Your task to perform on an android device: Open battery settings Image 0: 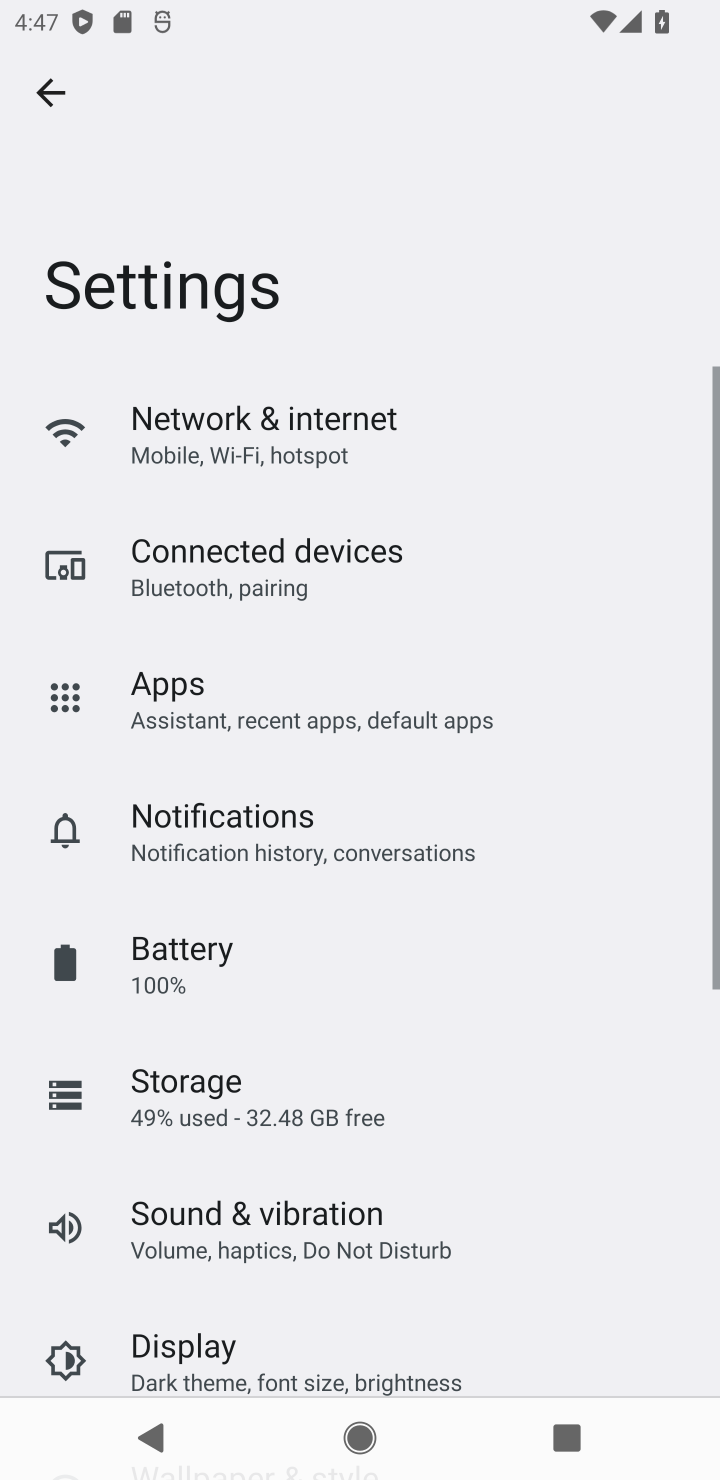
Step 0: press home button
Your task to perform on an android device: Open battery settings Image 1: 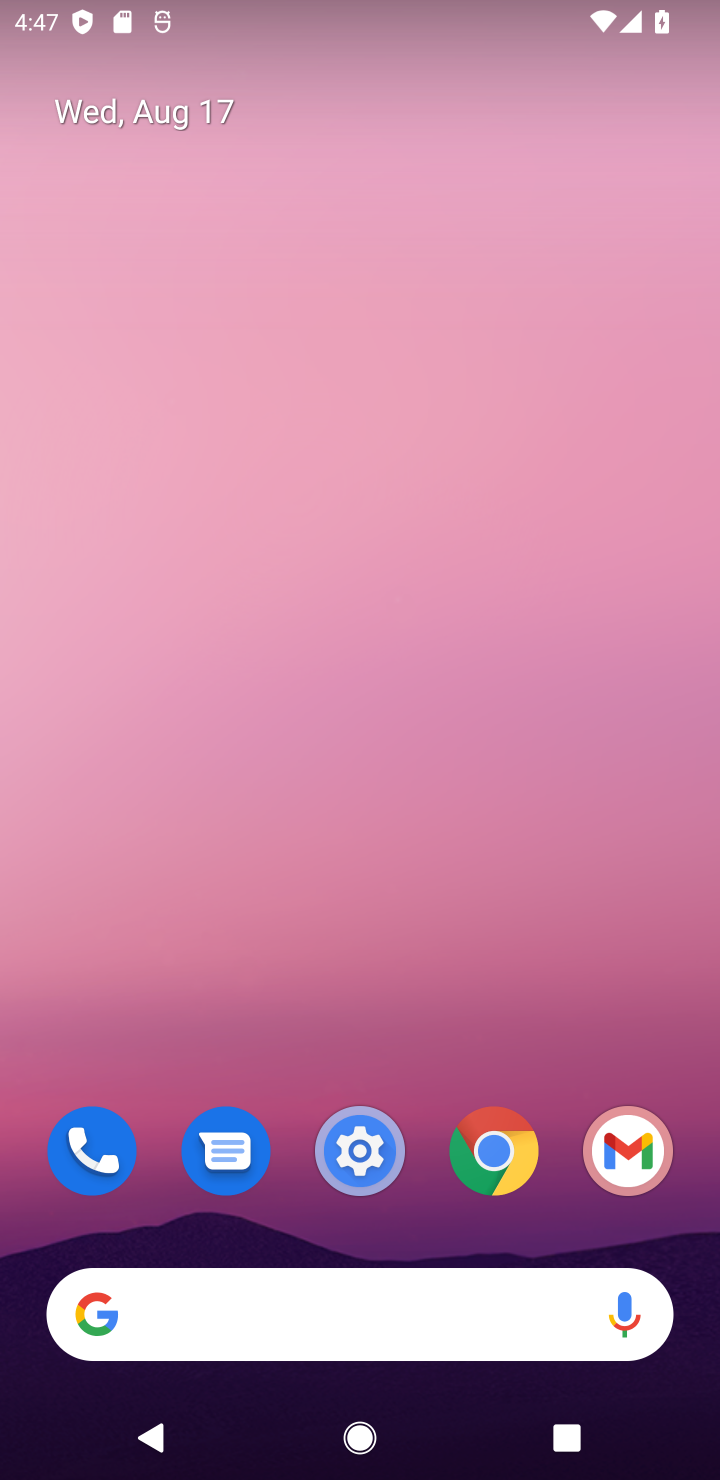
Step 1: click (491, 1190)
Your task to perform on an android device: Open battery settings Image 2: 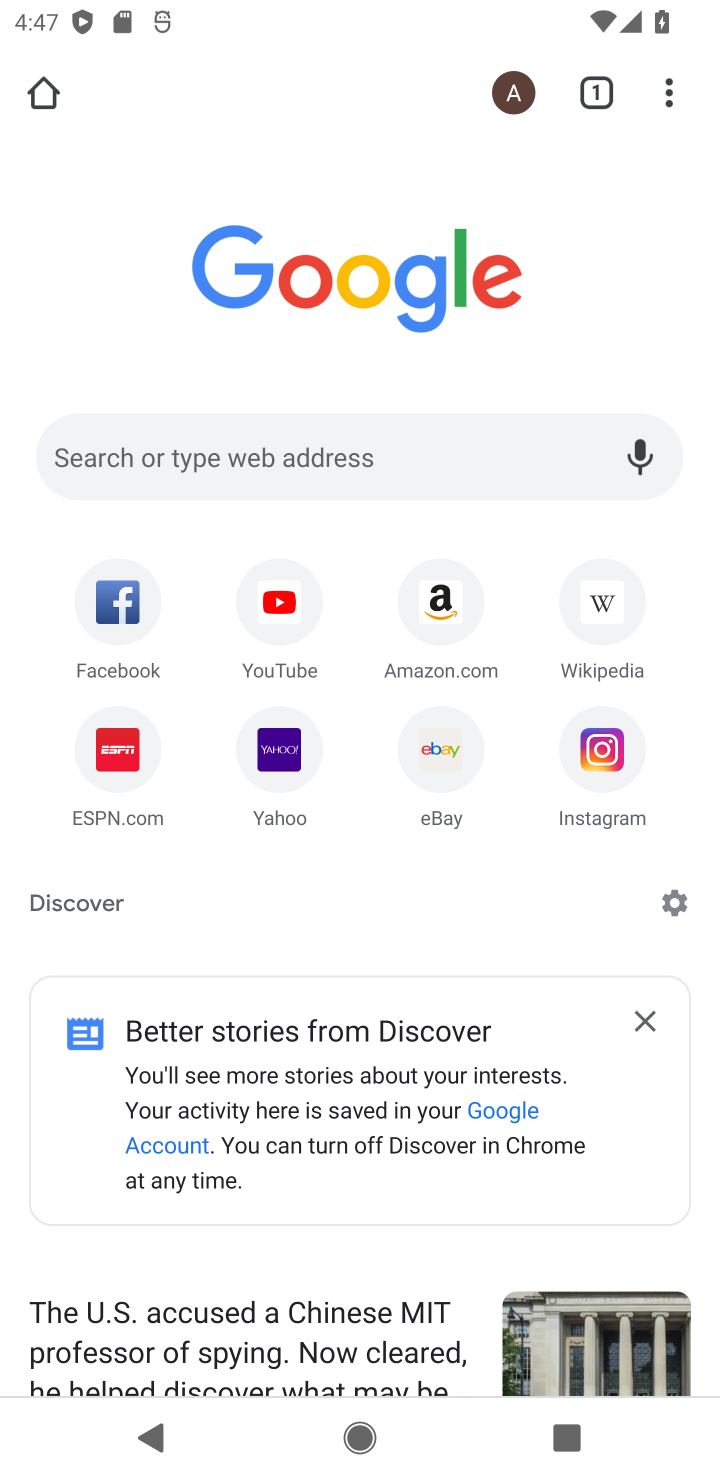
Step 2: click (465, 779)
Your task to perform on an android device: Open battery settings Image 3: 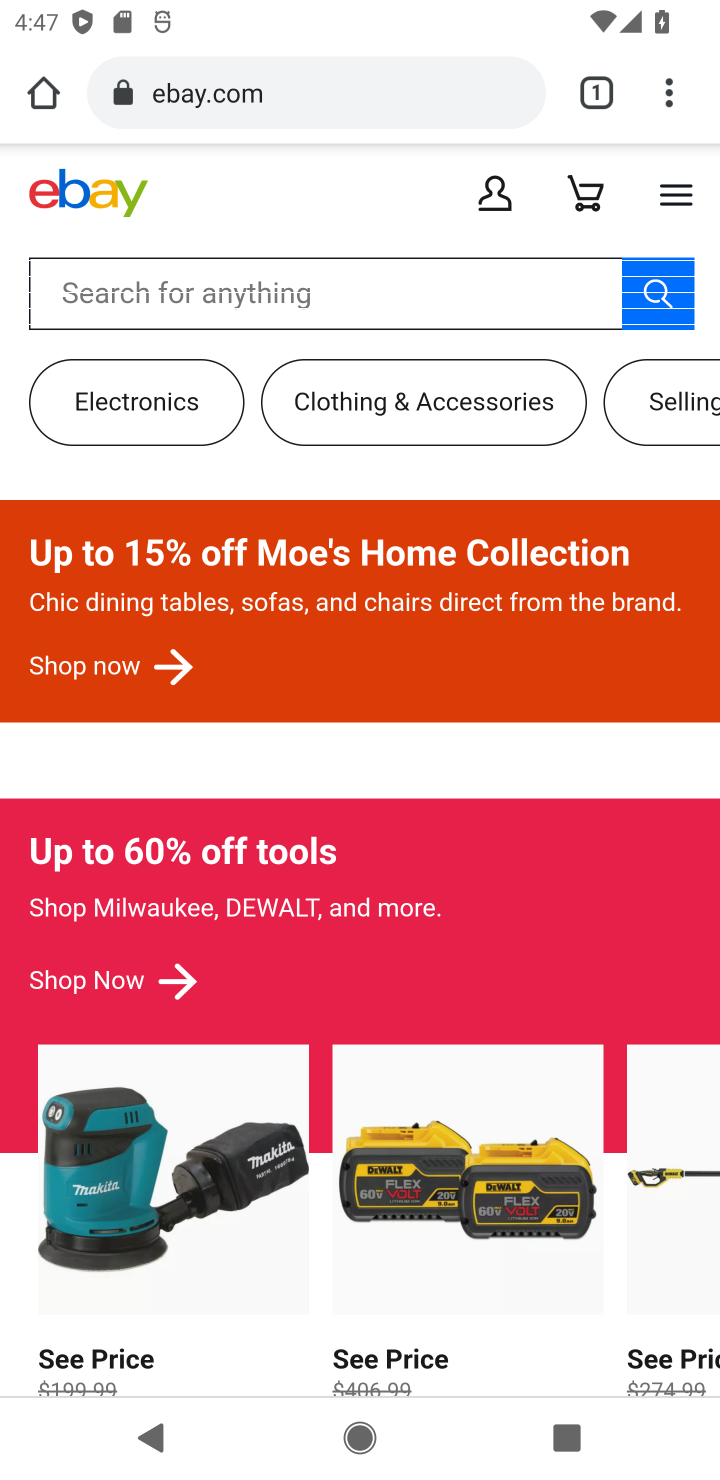
Step 3: task complete